Your task to perform on an android device: turn on bluetooth scan Image 0: 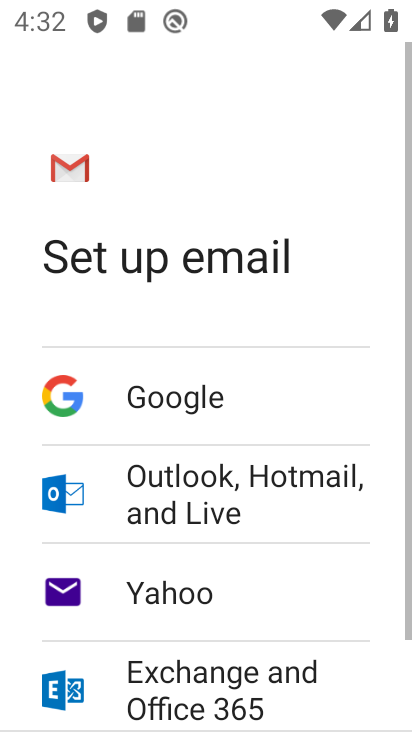
Step 0: press home button
Your task to perform on an android device: turn on bluetooth scan Image 1: 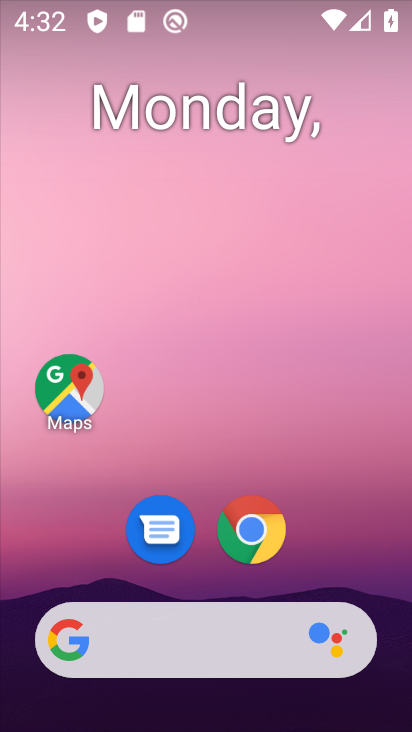
Step 1: drag from (347, 591) to (214, 141)
Your task to perform on an android device: turn on bluetooth scan Image 2: 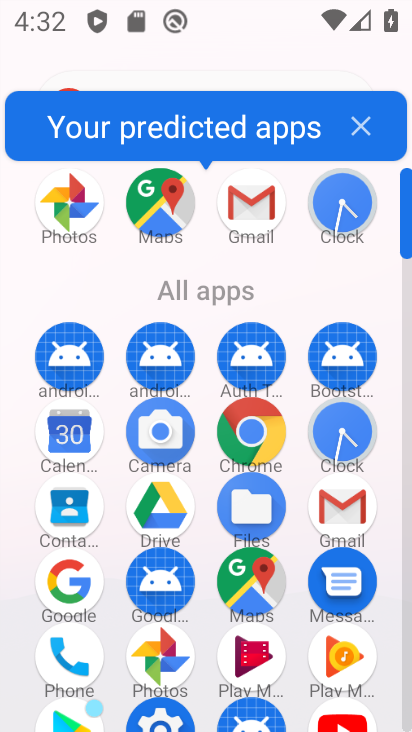
Step 2: click (408, 712)
Your task to perform on an android device: turn on bluetooth scan Image 3: 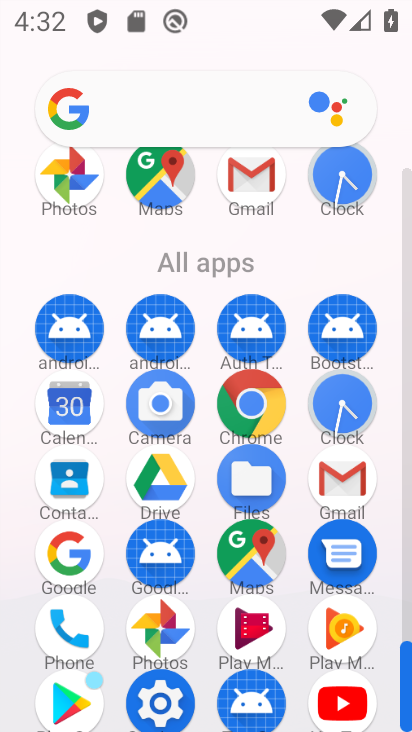
Step 3: click (148, 719)
Your task to perform on an android device: turn on bluetooth scan Image 4: 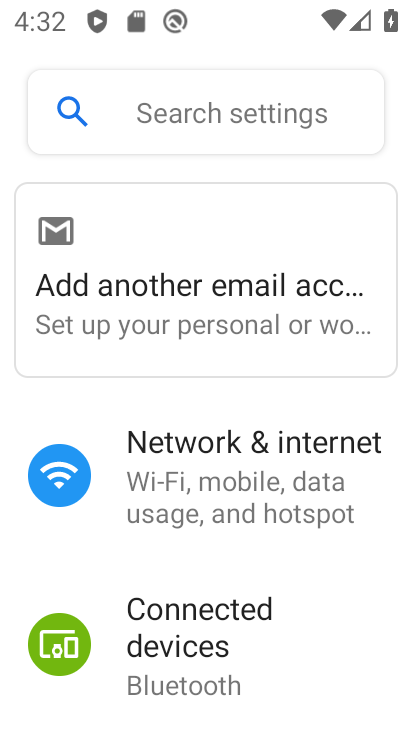
Step 4: drag from (281, 647) to (189, 192)
Your task to perform on an android device: turn on bluetooth scan Image 5: 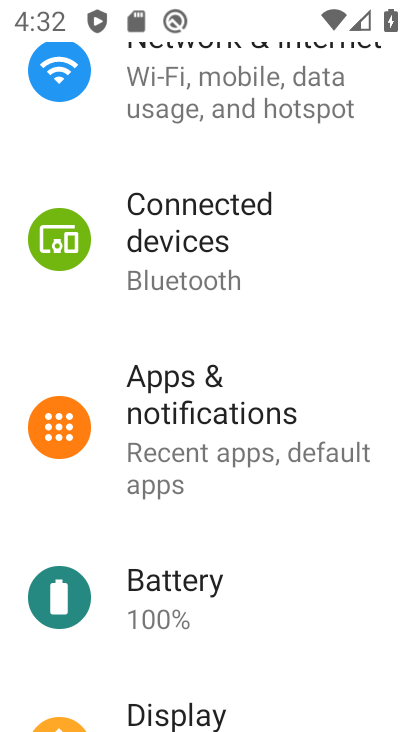
Step 5: drag from (294, 656) to (219, 264)
Your task to perform on an android device: turn on bluetooth scan Image 6: 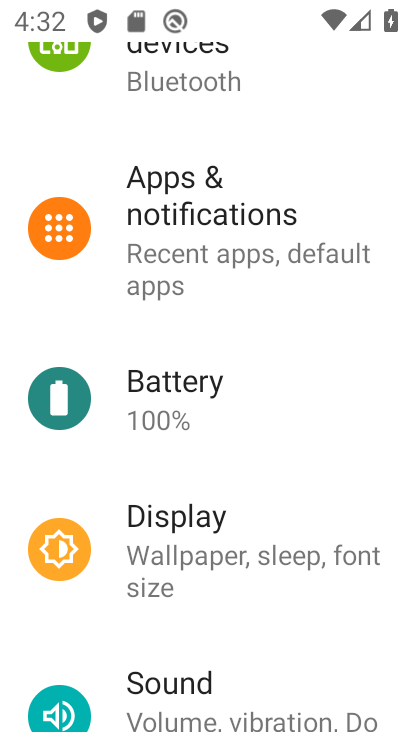
Step 6: drag from (258, 662) to (197, 255)
Your task to perform on an android device: turn on bluetooth scan Image 7: 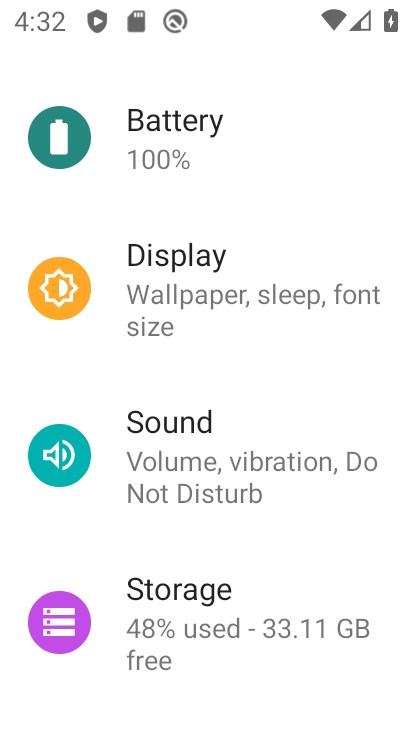
Step 7: drag from (234, 607) to (182, 224)
Your task to perform on an android device: turn on bluetooth scan Image 8: 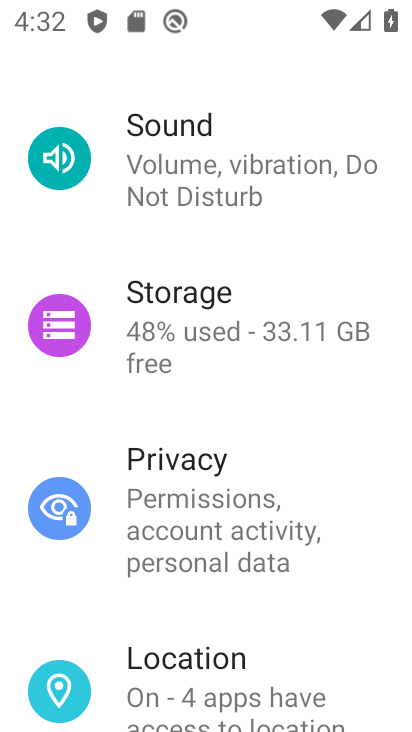
Step 8: click (275, 699)
Your task to perform on an android device: turn on bluetooth scan Image 9: 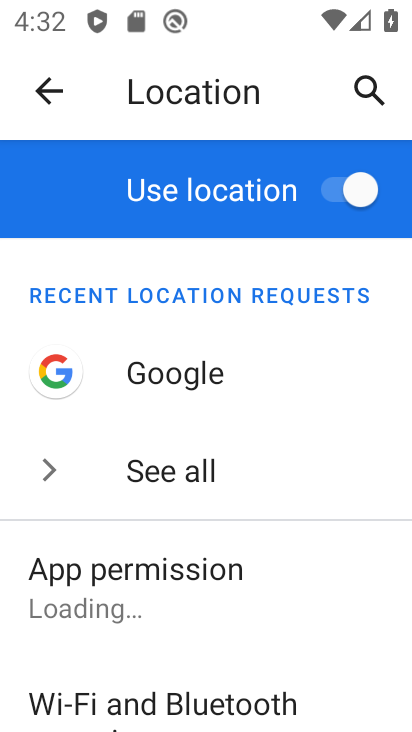
Step 9: drag from (331, 660) to (245, 285)
Your task to perform on an android device: turn on bluetooth scan Image 10: 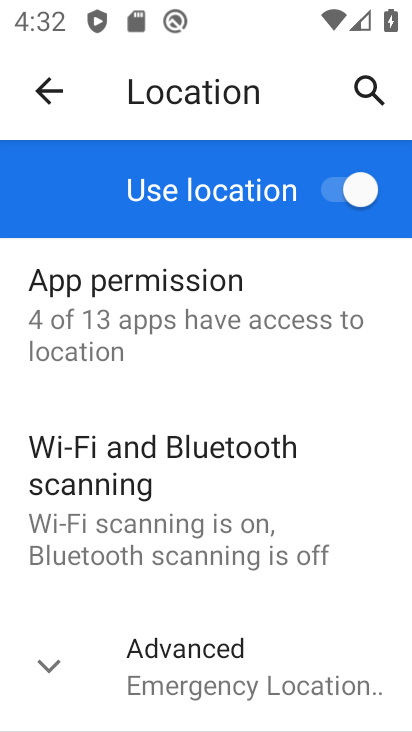
Step 10: click (275, 479)
Your task to perform on an android device: turn on bluetooth scan Image 11: 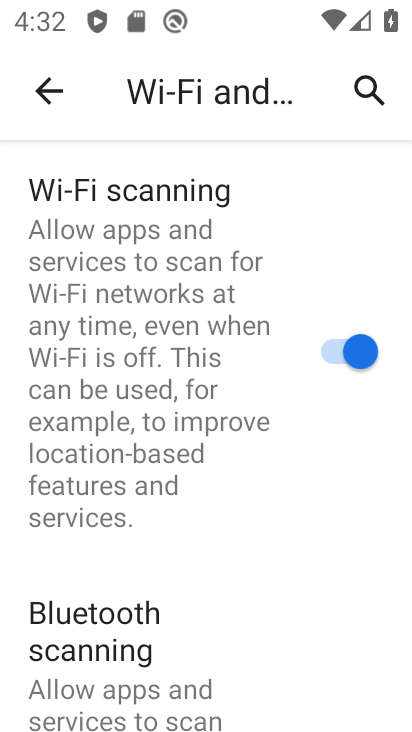
Step 11: drag from (301, 578) to (202, 153)
Your task to perform on an android device: turn on bluetooth scan Image 12: 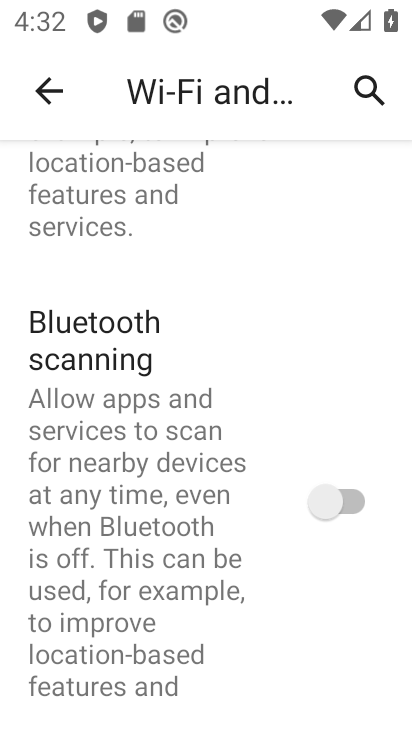
Step 12: click (349, 520)
Your task to perform on an android device: turn on bluetooth scan Image 13: 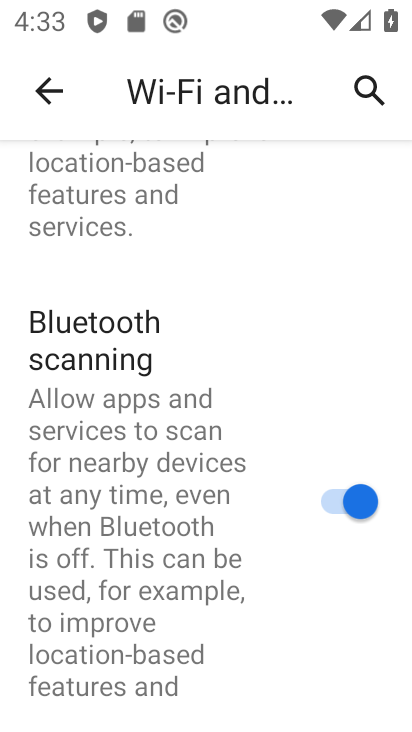
Step 13: task complete